Your task to perform on an android device: Open eBay Image 0: 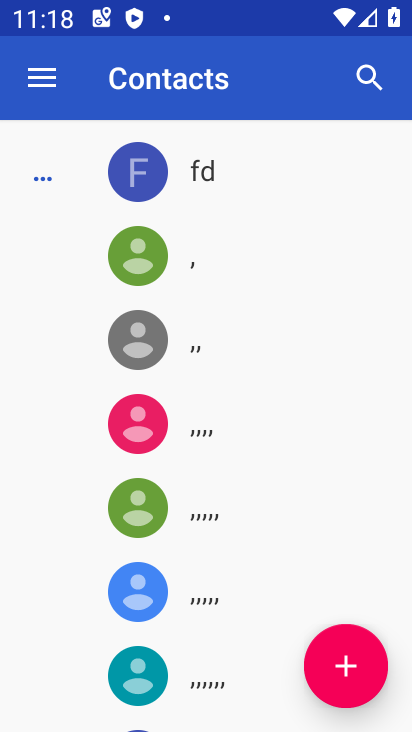
Step 0: press home button
Your task to perform on an android device: Open eBay Image 1: 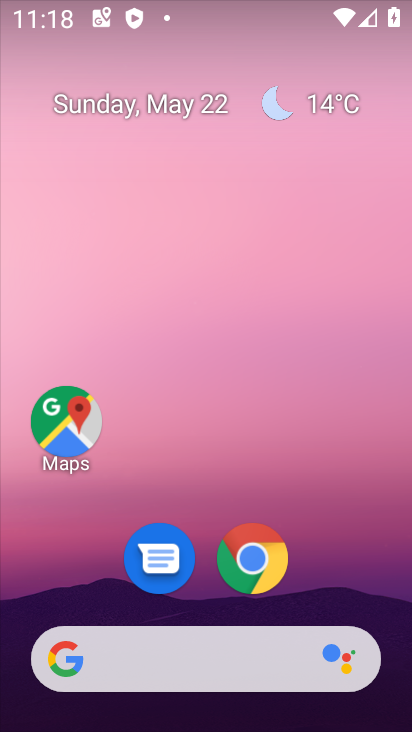
Step 1: click (260, 549)
Your task to perform on an android device: Open eBay Image 2: 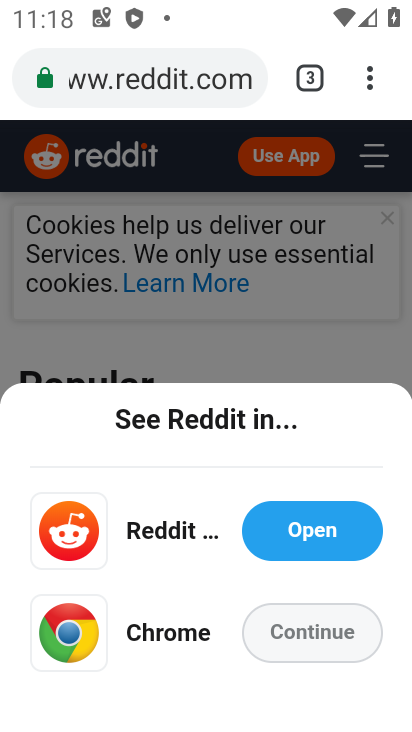
Step 2: click (122, 75)
Your task to perform on an android device: Open eBay Image 3: 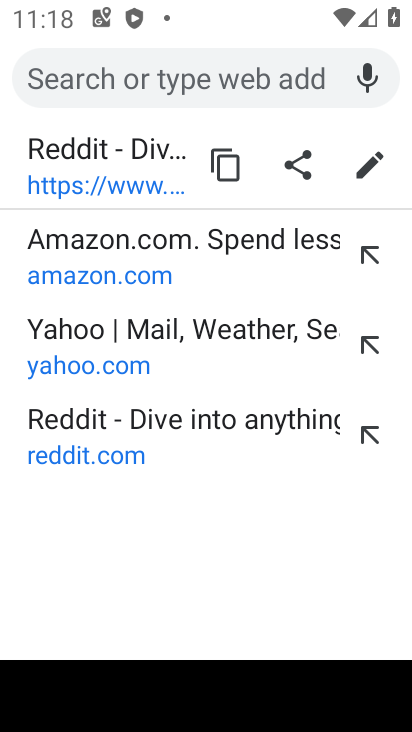
Step 3: type "ebay"
Your task to perform on an android device: Open eBay Image 4: 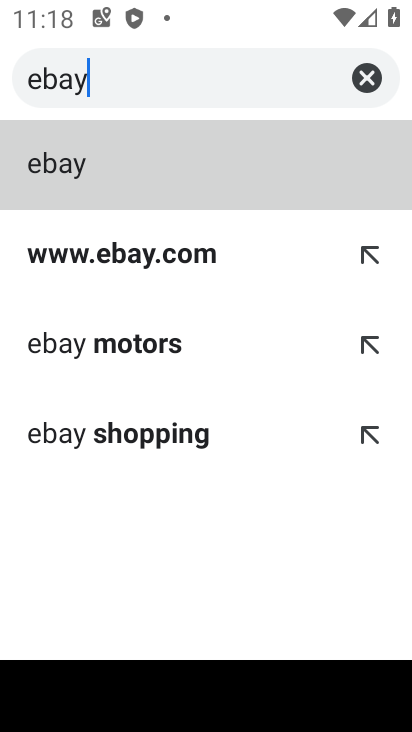
Step 4: click (61, 173)
Your task to perform on an android device: Open eBay Image 5: 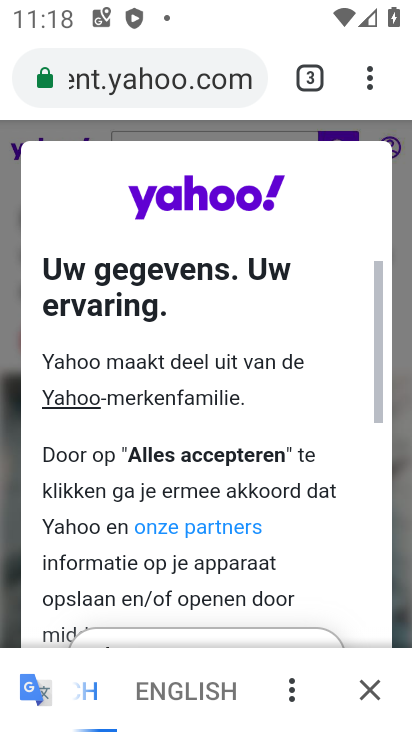
Step 5: click (123, 81)
Your task to perform on an android device: Open eBay Image 6: 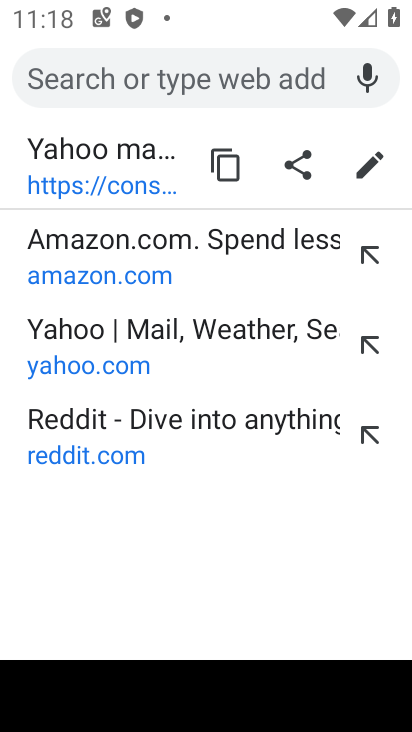
Step 6: type "ebay"
Your task to perform on an android device: Open eBay Image 7: 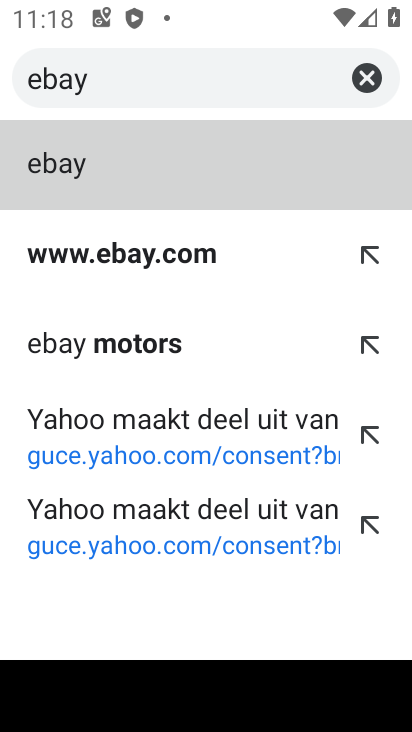
Step 7: click (108, 258)
Your task to perform on an android device: Open eBay Image 8: 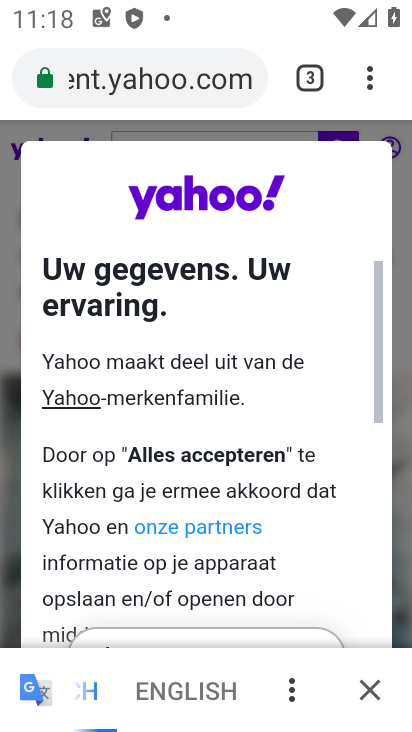
Step 8: drag from (199, 551) to (207, 24)
Your task to perform on an android device: Open eBay Image 9: 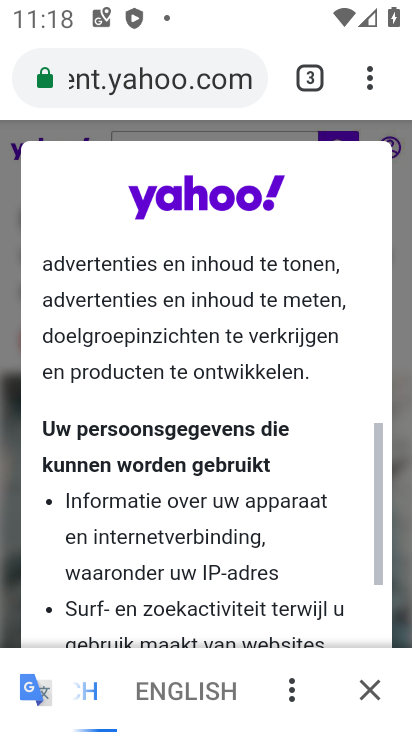
Step 9: drag from (188, 531) to (213, 65)
Your task to perform on an android device: Open eBay Image 10: 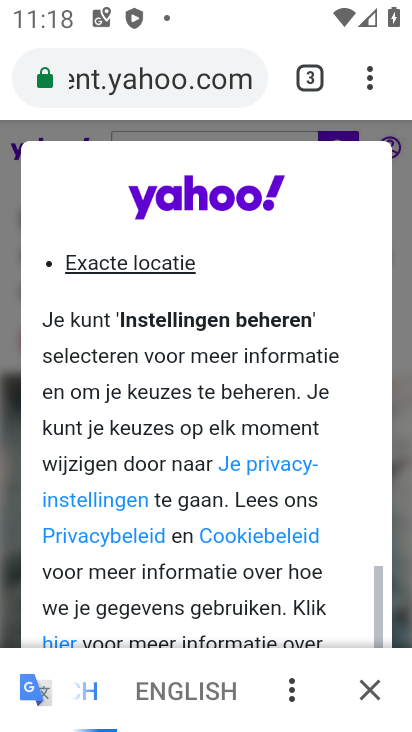
Step 10: drag from (208, 538) to (221, 101)
Your task to perform on an android device: Open eBay Image 11: 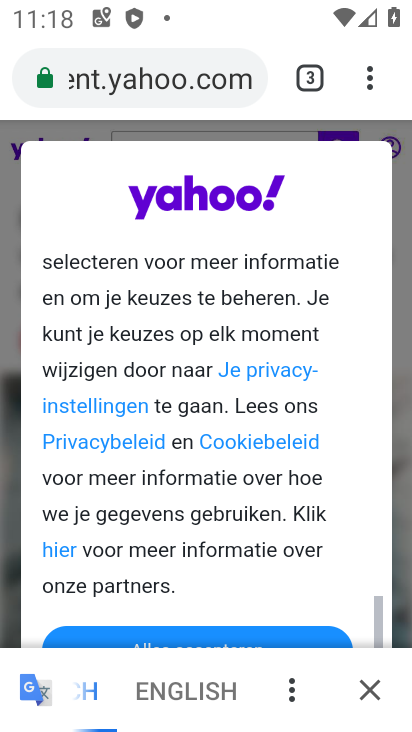
Step 11: drag from (204, 530) to (206, 140)
Your task to perform on an android device: Open eBay Image 12: 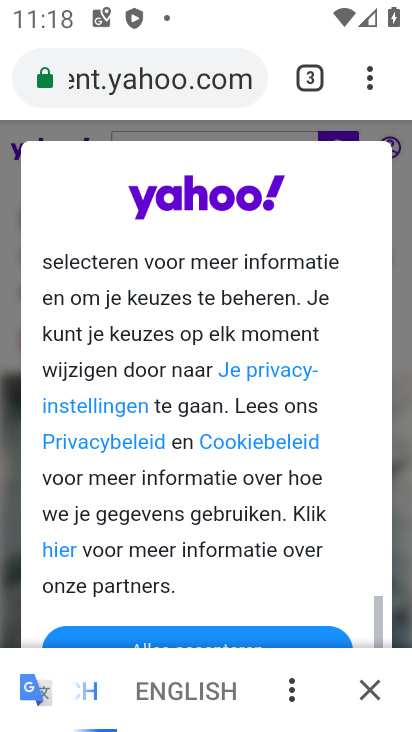
Step 12: drag from (204, 558) to (199, 226)
Your task to perform on an android device: Open eBay Image 13: 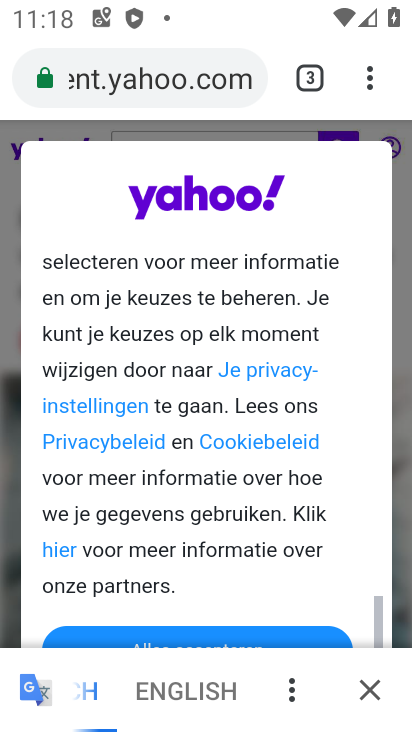
Step 13: click (159, 635)
Your task to perform on an android device: Open eBay Image 14: 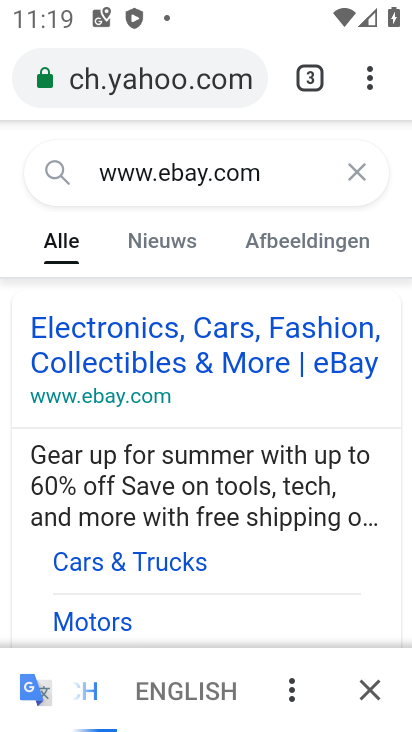
Step 14: click (79, 389)
Your task to perform on an android device: Open eBay Image 15: 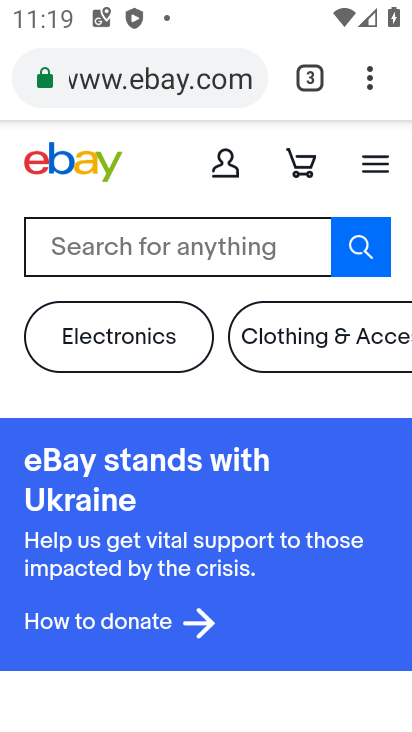
Step 15: task complete